Your task to perform on an android device: turn off location Image 0: 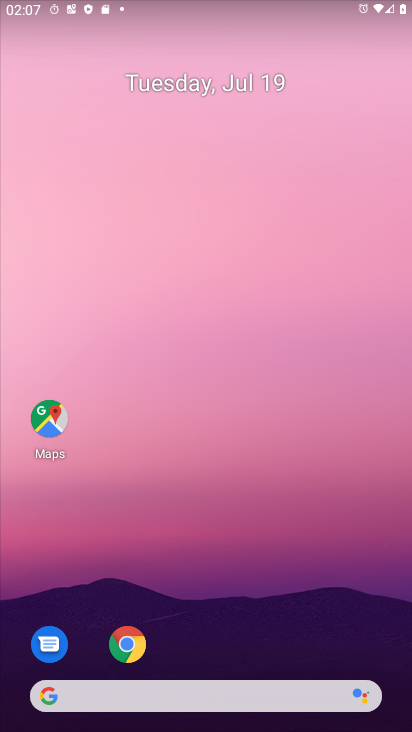
Step 0: drag from (209, 724) to (204, 13)
Your task to perform on an android device: turn off location Image 1: 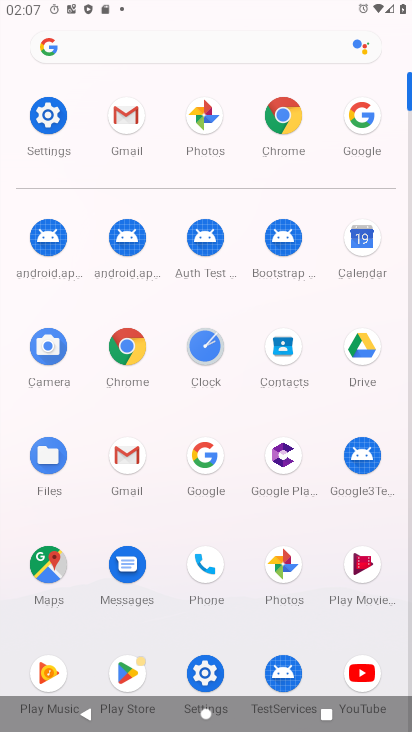
Step 1: click (54, 123)
Your task to perform on an android device: turn off location Image 2: 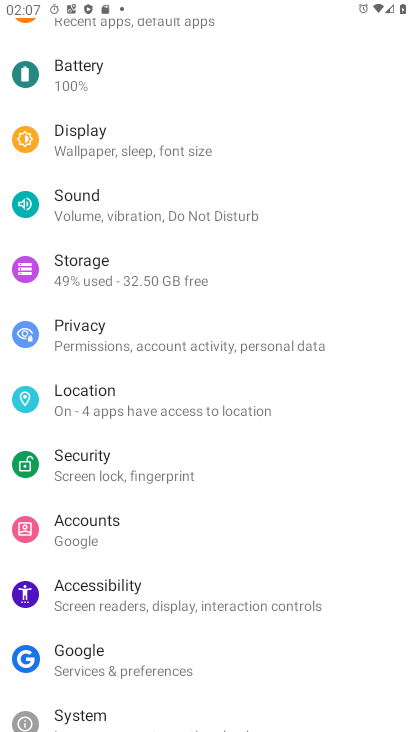
Step 2: click (95, 400)
Your task to perform on an android device: turn off location Image 3: 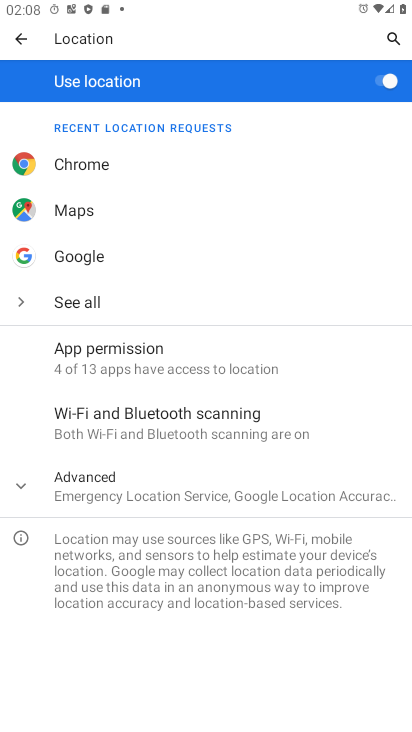
Step 3: click (375, 79)
Your task to perform on an android device: turn off location Image 4: 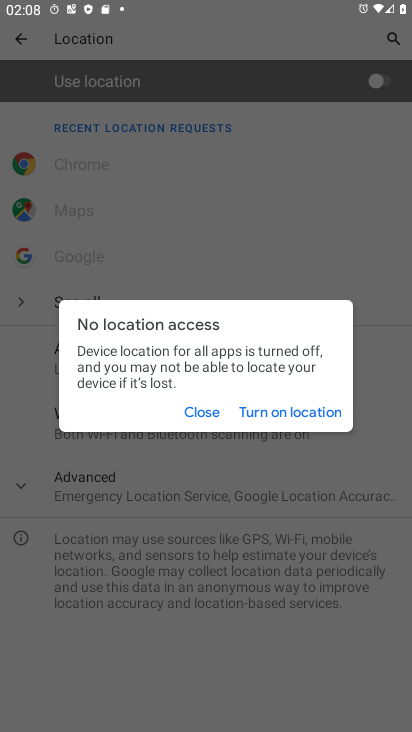
Step 4: click (207, 411)
Your task to perform on an android device: turn off location Image 5: 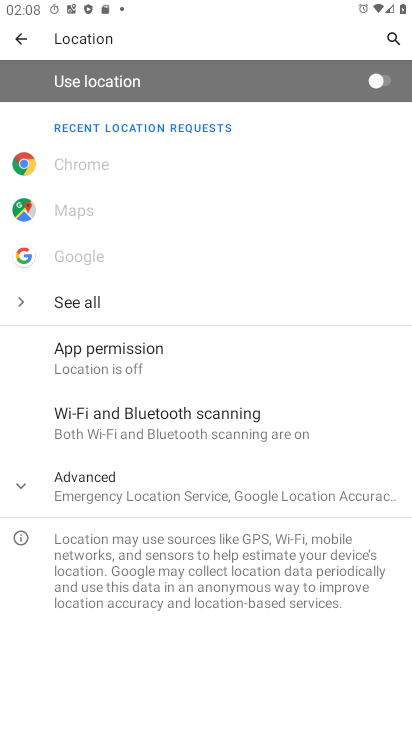
Step 5: task complete